Your task to perform on an android device: open app "Microsoft Authenticator" Image 0: 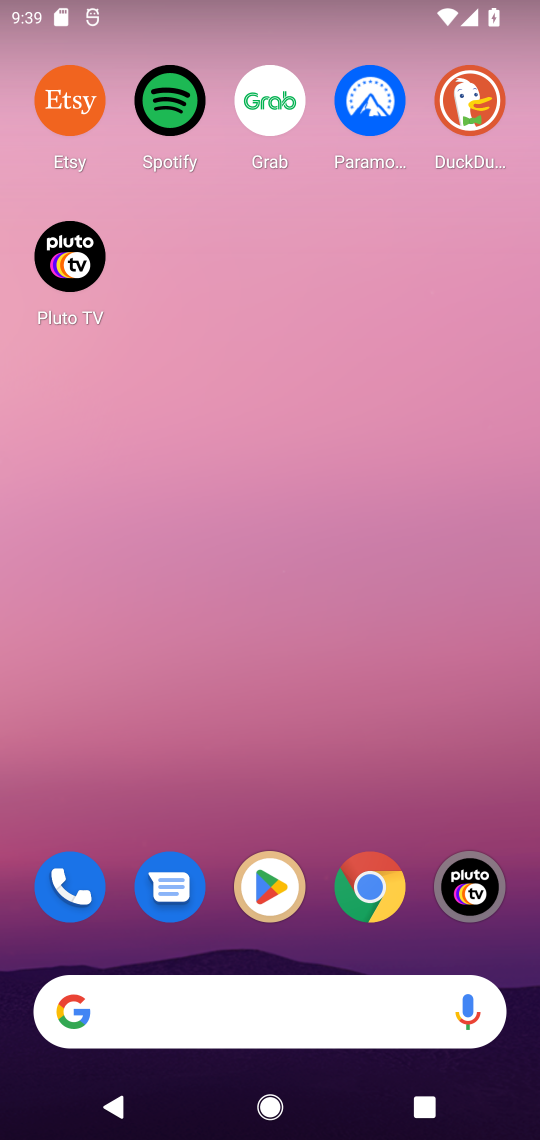
Step 0: click (287, 885)
Your task to perform on an android device: open app "Microsoft Authenticator" Image 1: 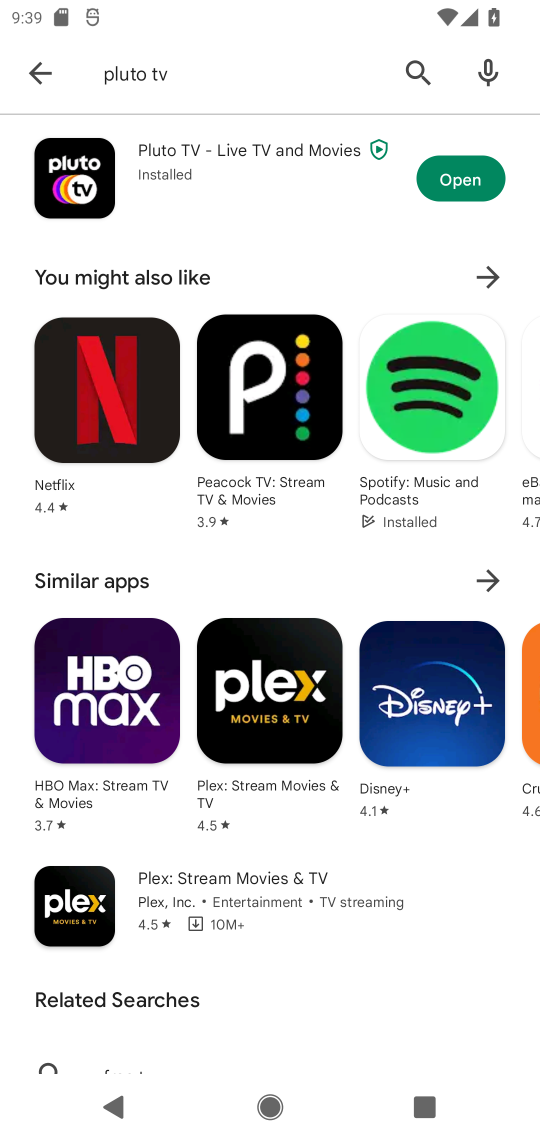
Step 1: click (411, 78)
Your task to perform on an android device: open app "Microsoft Authenticator" Image 2: 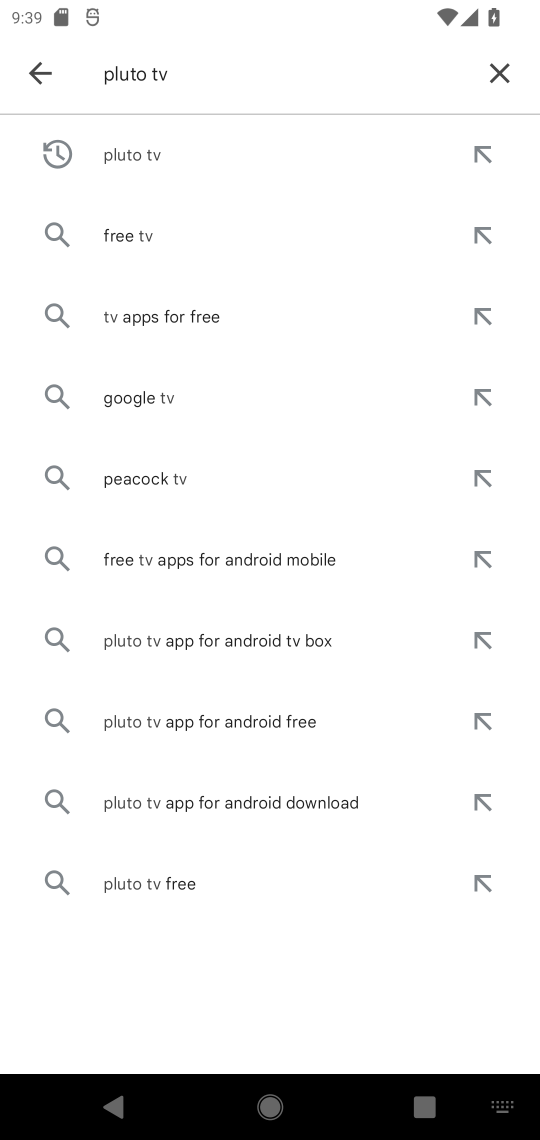
Step 2: click (492, 69)
Your task to perform on an android device: open app "Microsoft Authenticator" Image 3: 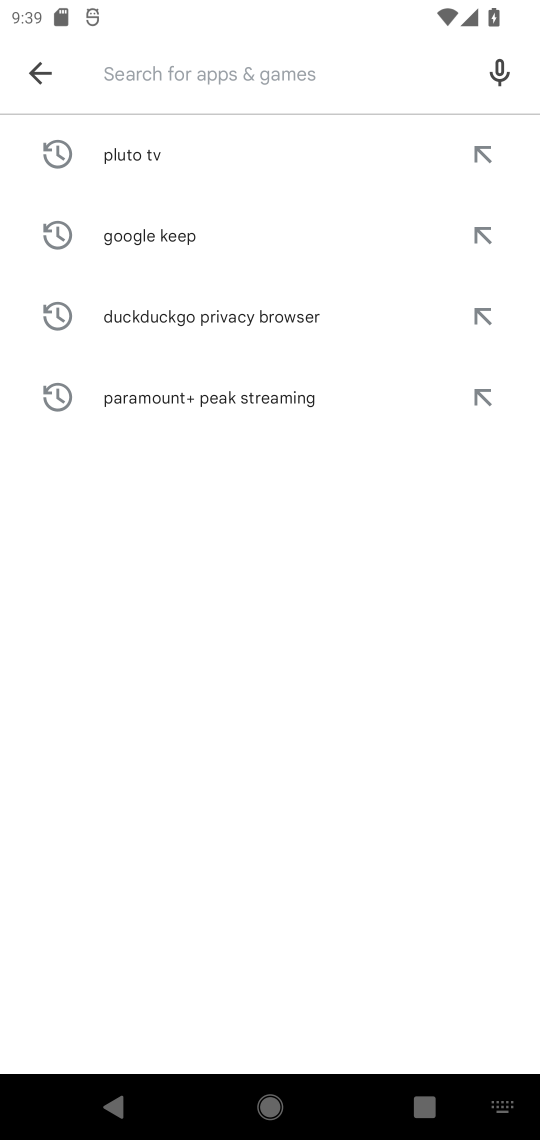
Step 3: type "Microsoft Authenticator"
Your task to perform on an android device: open app "Microsoft Authenticator" Image 4: 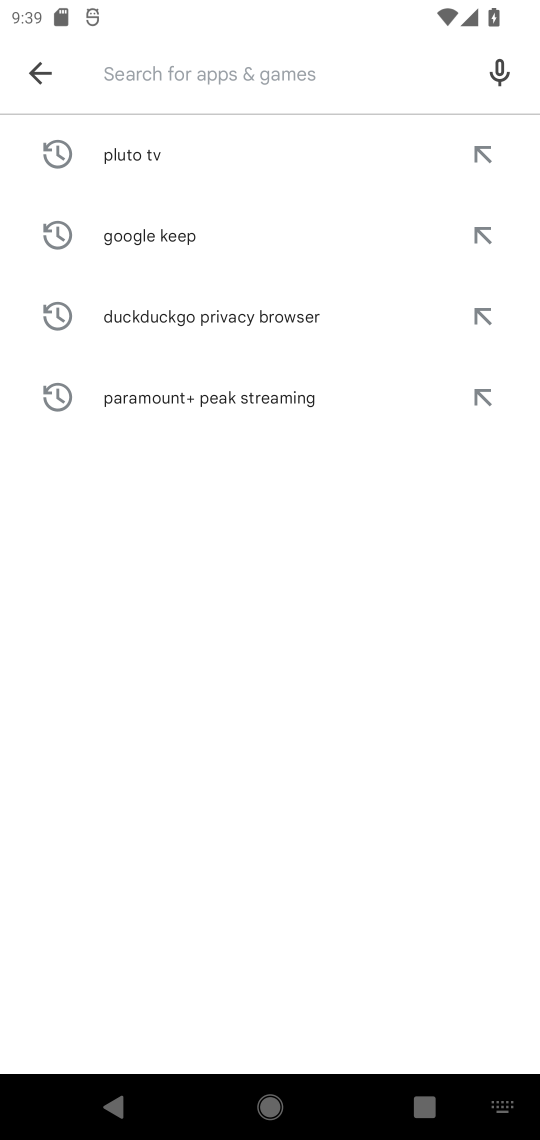
Step 4: click (272, 62)
Your task to perform on an android device: open app "Microsoft Authenticator" Image 5: 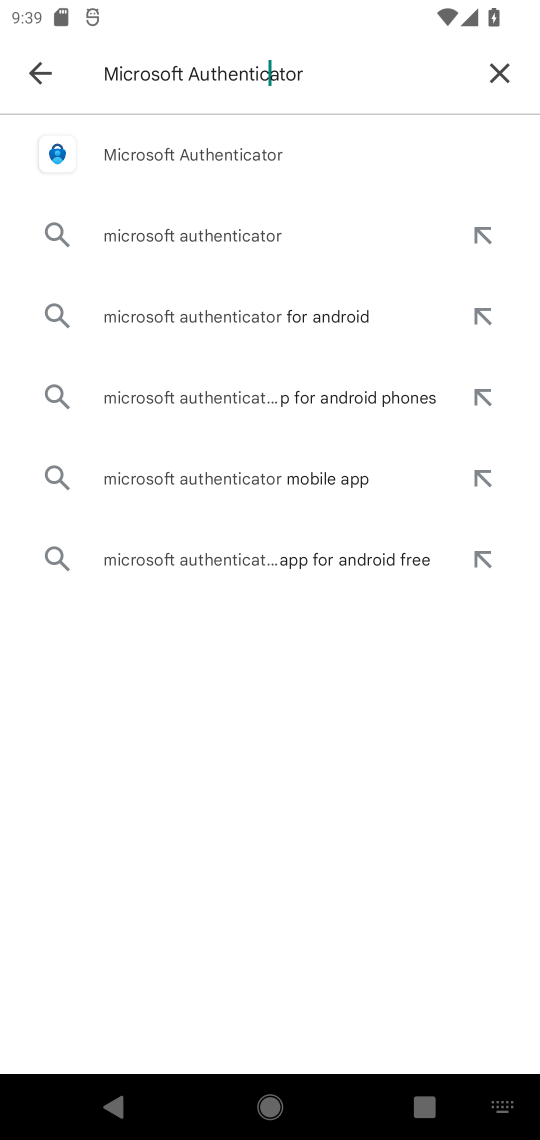
Step 5: click (126, 146)
Your task to perform on an android device: open app "Microsoft Authenticator" Image 6: 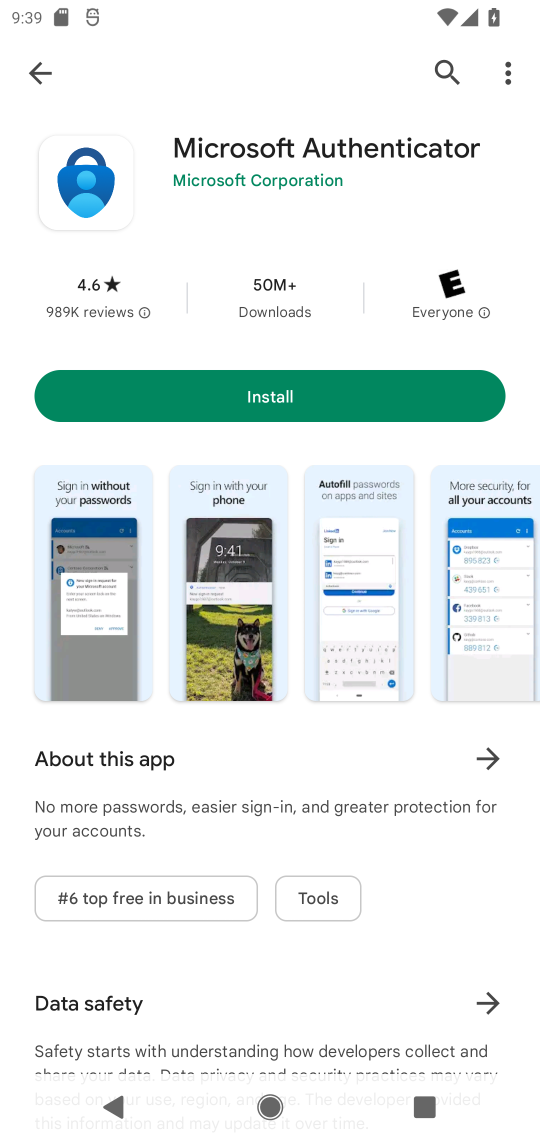
Step 6: task complete